Your task to perform on an android device: Open Google Maps and go to "Timeline" Image 0: 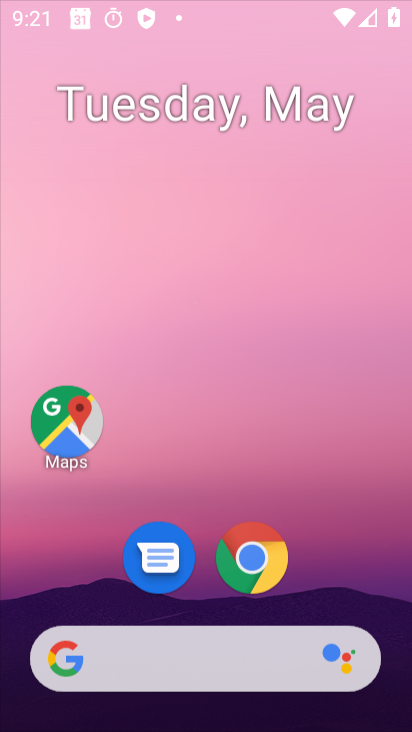
Step 0: click (152, 128)
Your task to perform on an android device: Open Google Maps and go to "Timeline" Image 1: 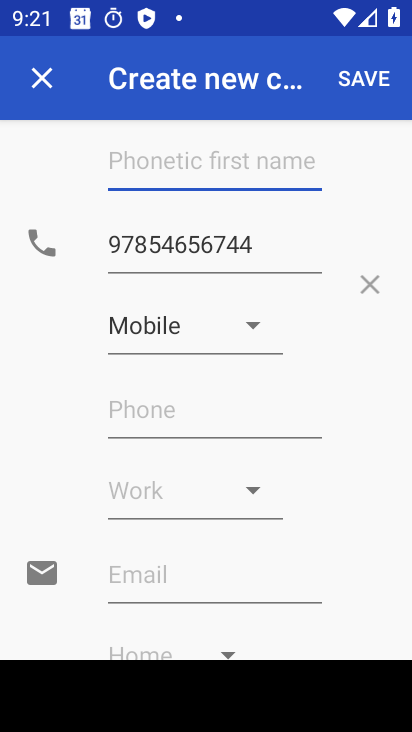
Step 1: press back button
Your task to perform on an android device: Open Google Maps and go to "Timeline" Image 2: 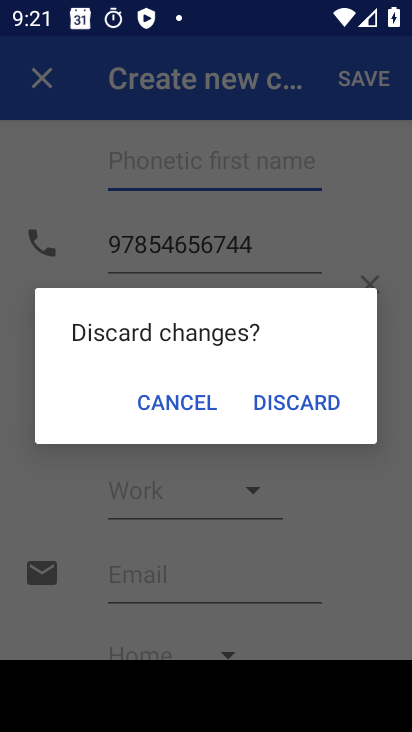
Step 2: click (280, 406)
Your task to perform on an android device: Open Google Maps and go to "Timeline" Image 3: 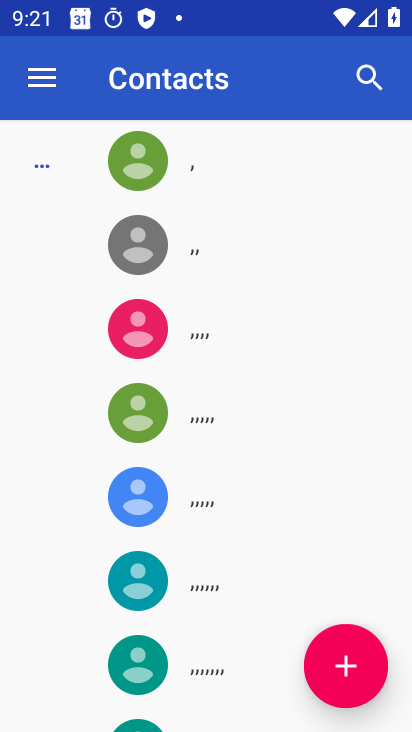
Step 3: press home button
Your task to perform on an android device: Open Google Maps and go to "Timeline" Image 4: 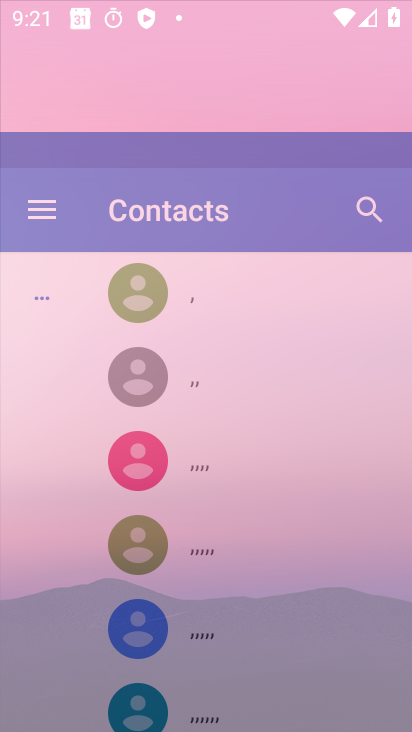
Step 4: press home button
Your task to perform on an android device: Open Google Maps and go to "Timeline" Image 5: 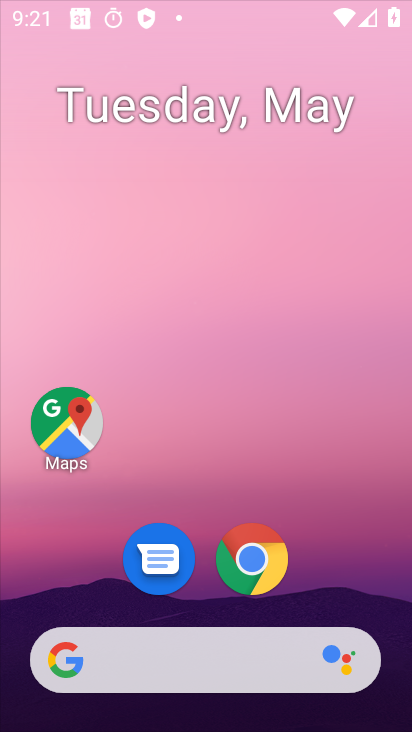
Step 5: press home button
Your task to perform on an android device: Open Google Maps and go to "Timeline" Image 6: 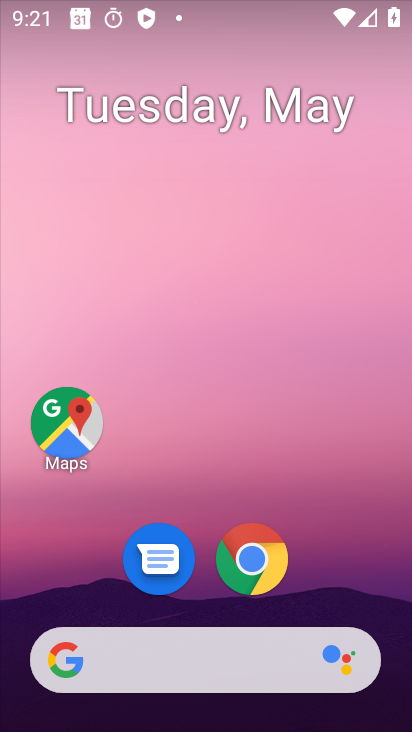
Step 6: drag from (364, 650) to (103, 153)
Your task to perform on an android device: Open Google Maps and go to "Timeline" Image 7: 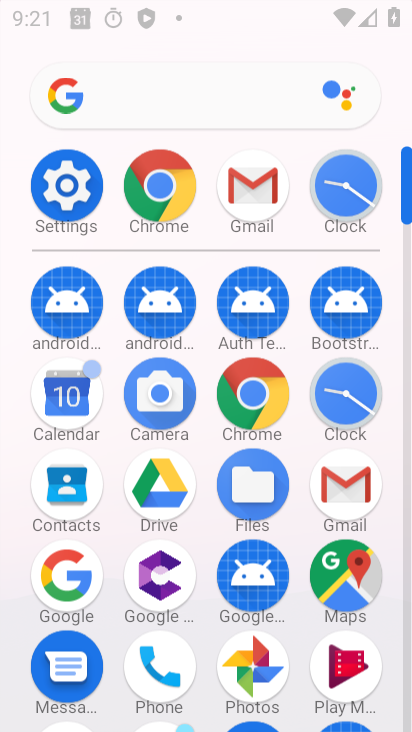
Step 7: drag from (313, 570) to (131, 27)
Your task to perform on an android device: Open Google Maps and go to "Timeline" Image 8: 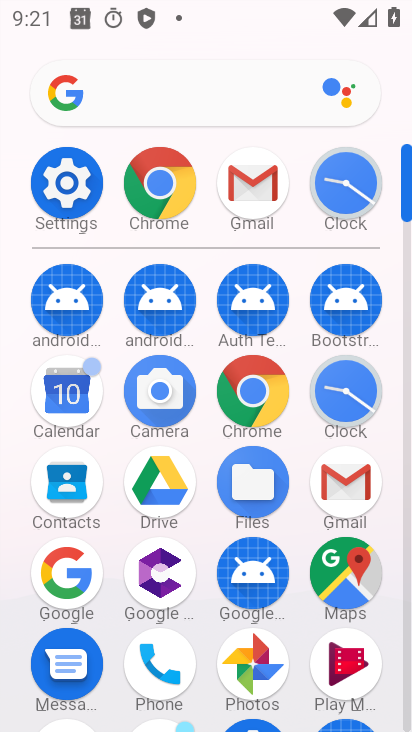
Step 8: click (351, 563)
Your task to perform on an android device: Open Google Maps and go to "Timeline" Image 9: 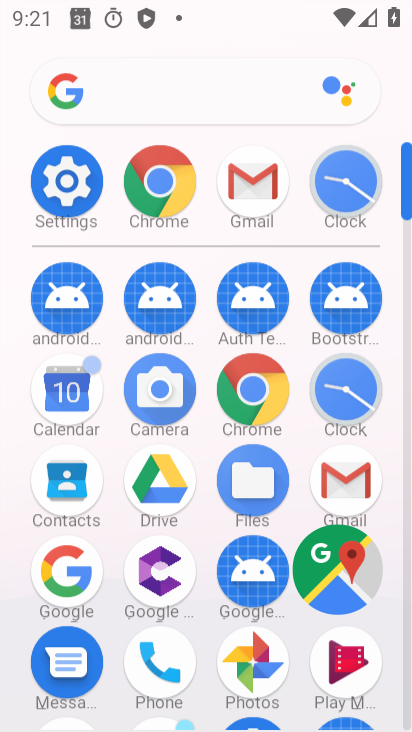
Step 9: click (352, 564)
Your task to perform on an android device: Open Google Maps and go to "Timeline" Image 10: 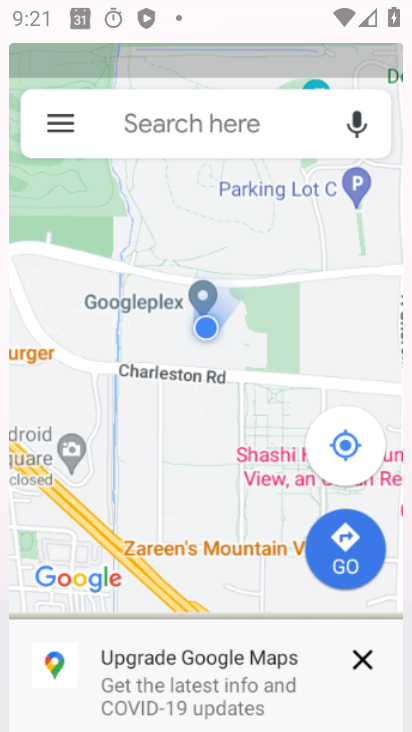
Step 10: click (353, 565)
Your task to perform on an android device: Open Google Maps and go to "Timeline" Image 11: 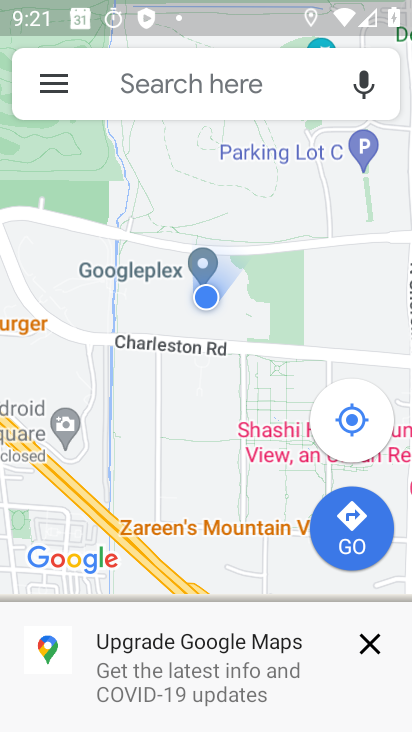
Step 11: click (67, 65)
Your task to perform on an android device: Open Google Maps and go to "Timeline" Image 12: 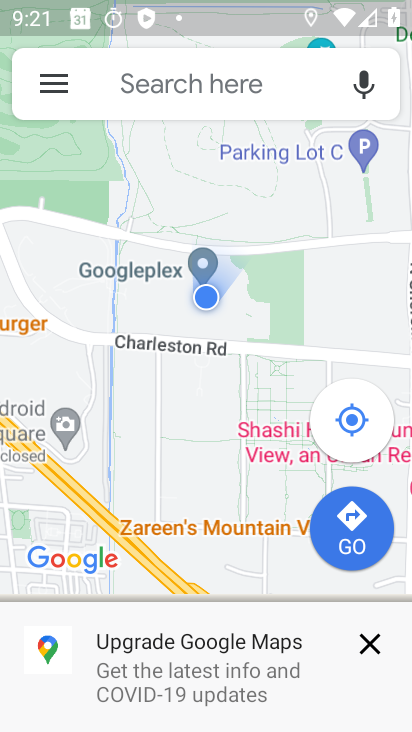
Step 12: click (56, 82)
Your task to perform on an android device: Open Google Maps and go to "Timeline" Image 13: 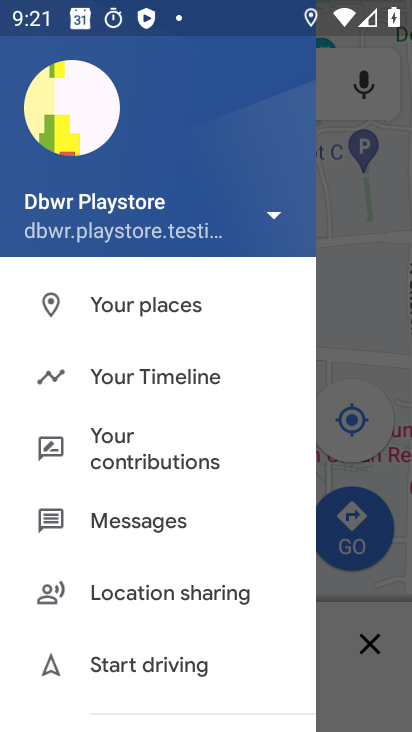
Step 13: click (161, 375)
Your task to perform on an android device: Open Google Maps and go to "Timeline" Image 14: 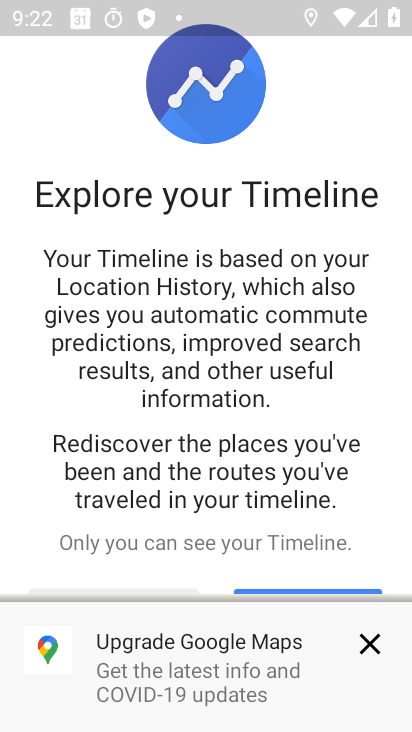
Step 14: task complete